Your task to perform on an android device: Show me the alarms in the clock app Image 0: 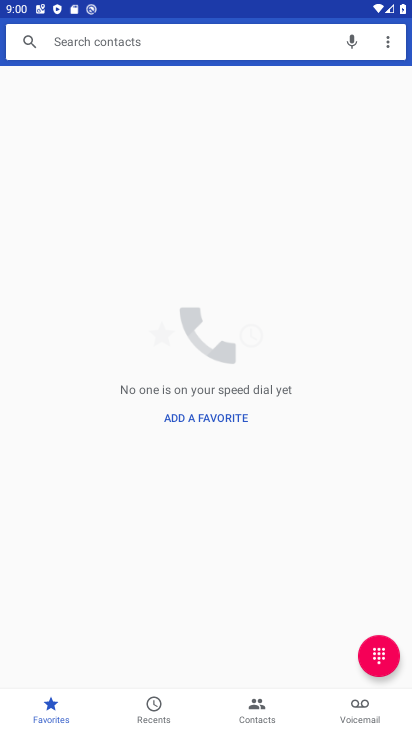
Step 0: press home button
Your task to perform on an android device: Show me the alarms in the clock app Image 1: 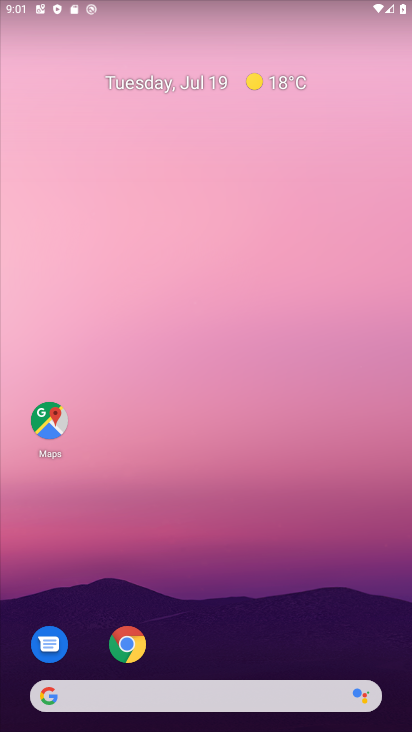
Step 1: drag from (175, 714) to (175, 209)
Your task to perform on an android device: Show me the alarms in the clock app Image 2: 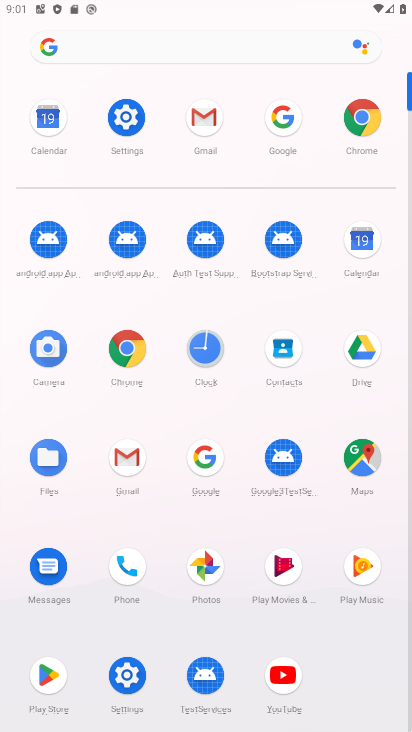
Step 2: click (202, 346)
Your task to perform on an android device: Show me the alarms in the clock app Image 3: 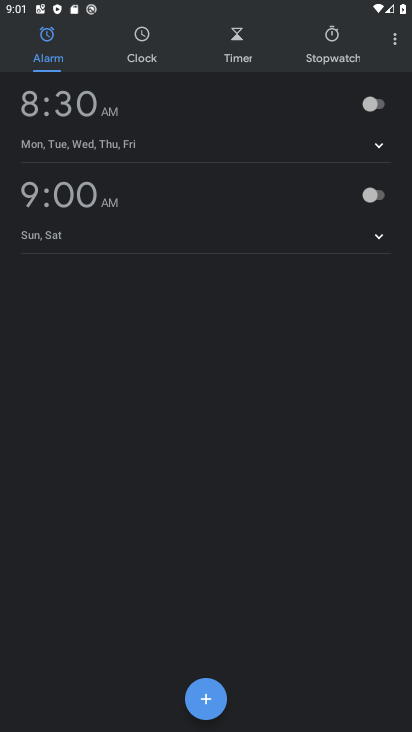
Step 3: task complete